Your task to perform on an android device: Go to Amazon Image 0: 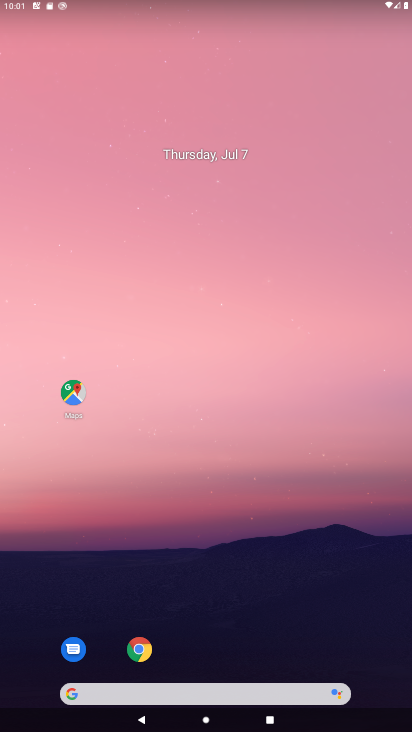
Step 0: click (135, 645)
Your task to perform on an android device: Go to Amazon Image 1: 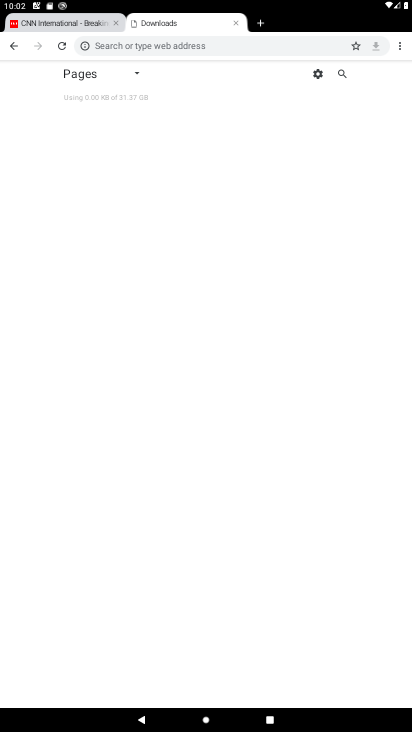
Step 1: click (262, 27)
Your task to perform on an android device: Go to Amazon Image 2: 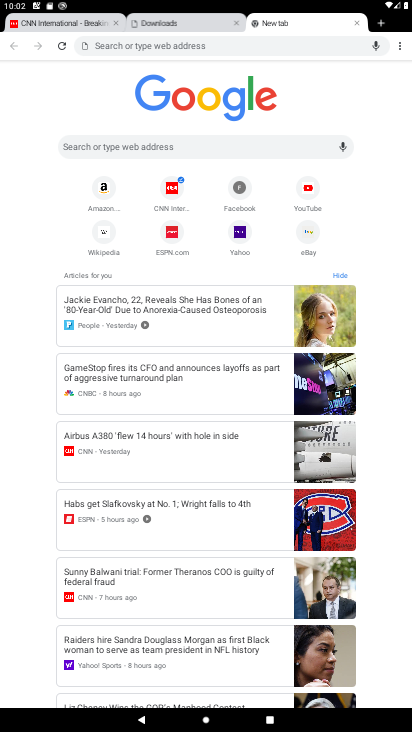
Step 2: click (96, 176)
Your task to perform on an android device: Go to Amazon Image 3: 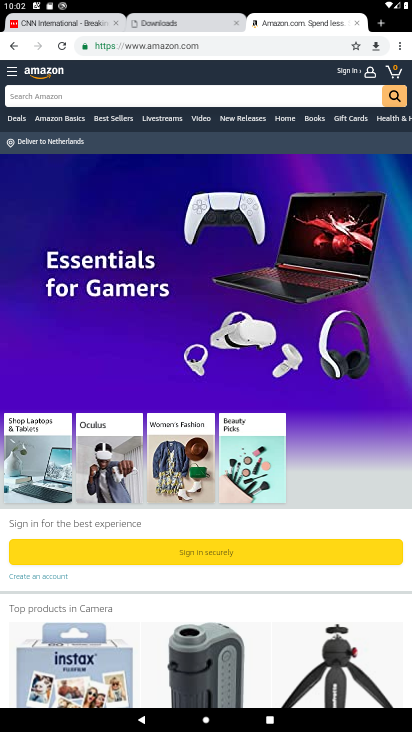
Step 3: task complete